Your task to perform on an android device: clear all cookies in the chrome app Image 0: 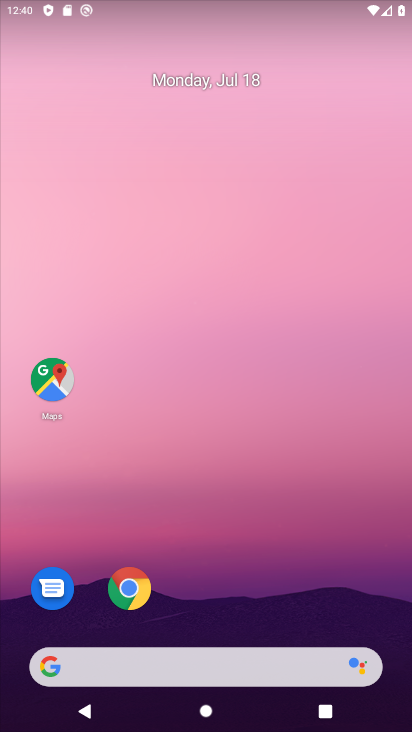
Step 0: click (144, 604)
Your task to perform on an android device: clear all cookies in the chrome app Image 1: 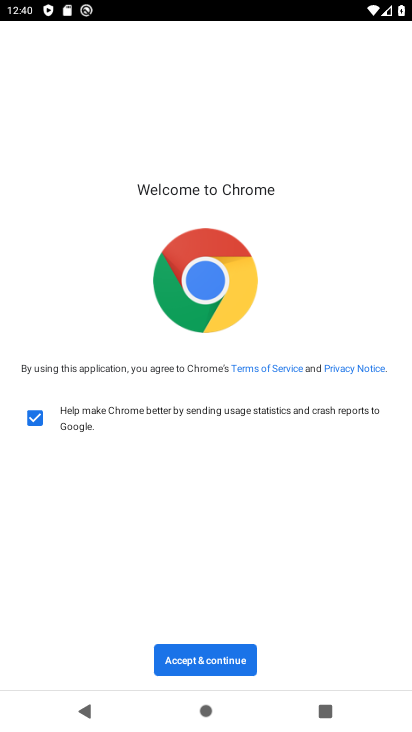
Step 1: click (198, 678)
Your task to perform on an android device: clear all cookies in the chrome app Image 2: 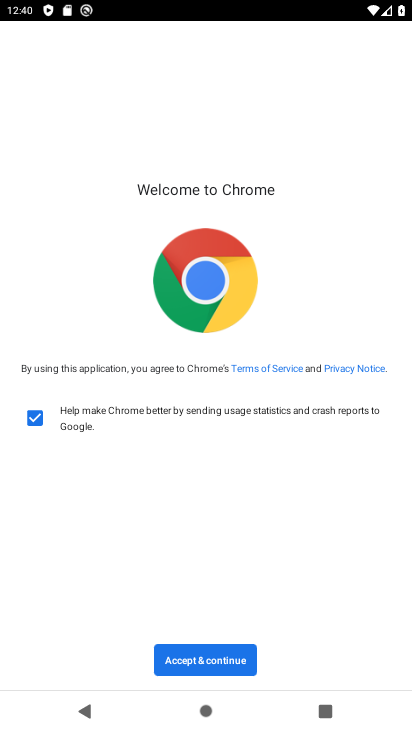
Step 2: click (192, 666)
Your task to perform on an android device: clear all cookies in the chrome app Image 3: 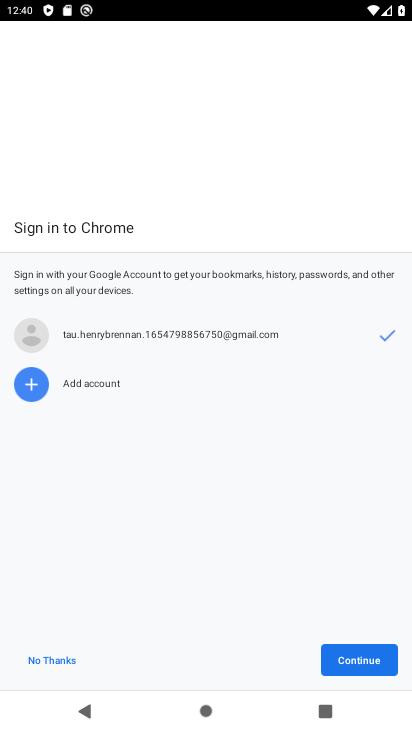
Step 3: click (368, 669)
Your task to perform on an android device: clear all cookies in the chrome app Image 4: 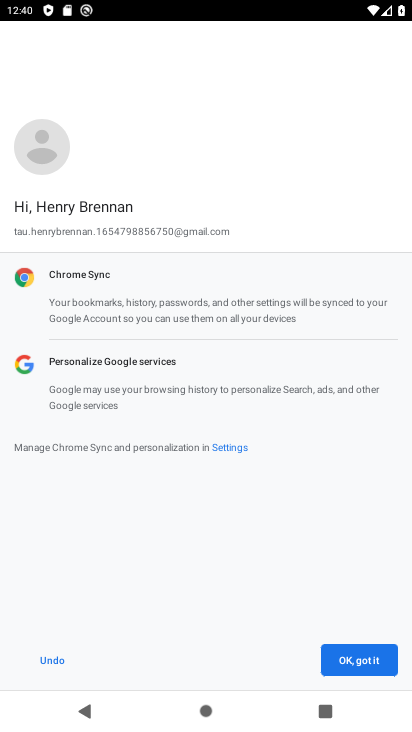
Step 4: click (363, 657)
Your task to perform on an android device: clear all cookies in the chrome app Image 5: 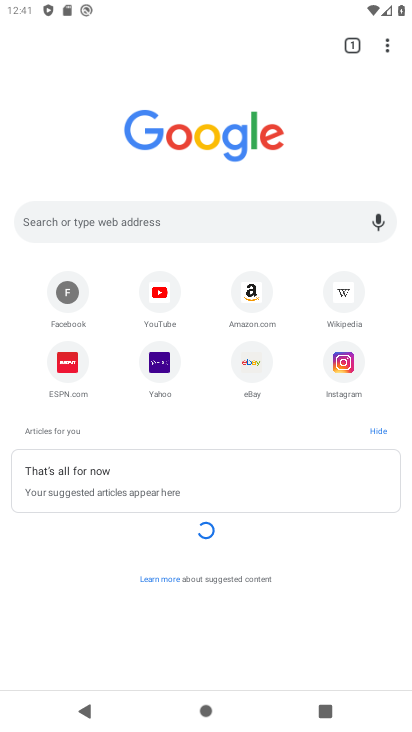
Step 5: drag from (390, 42) to (277, 260)
Your task to perform on an android device: clear all cookies in the chrome app Image 6: 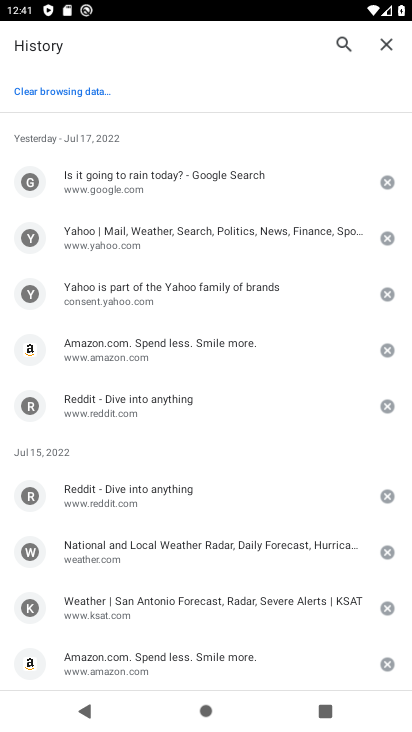
Step 6: click (49, 87)
Your task to perform on an android device: clear all cookies in the chrome app Image 7: 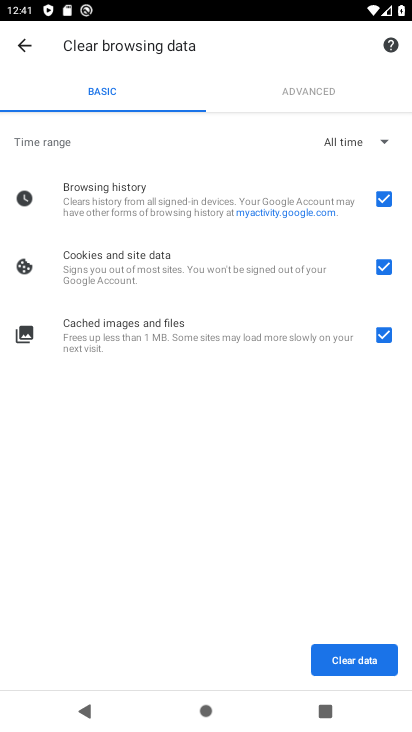
Step 7: click (377, 206)
Your task to perform on an android device: clear all cookies in the chrome app Image 8: 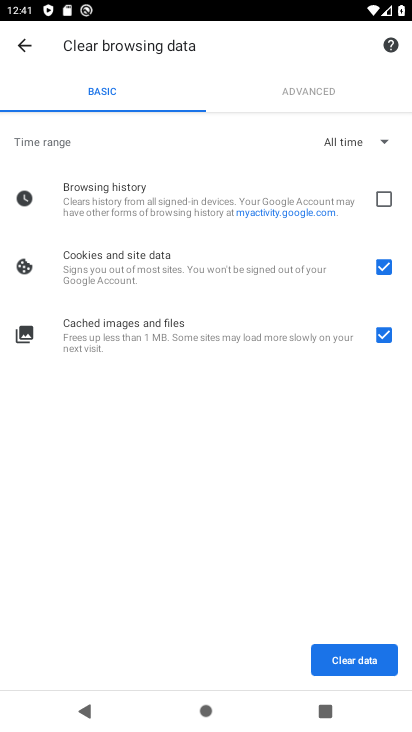
Step 8: click (386, 336)
Your task to perform on an android device: clear all cookies in the chrome app Image 9: 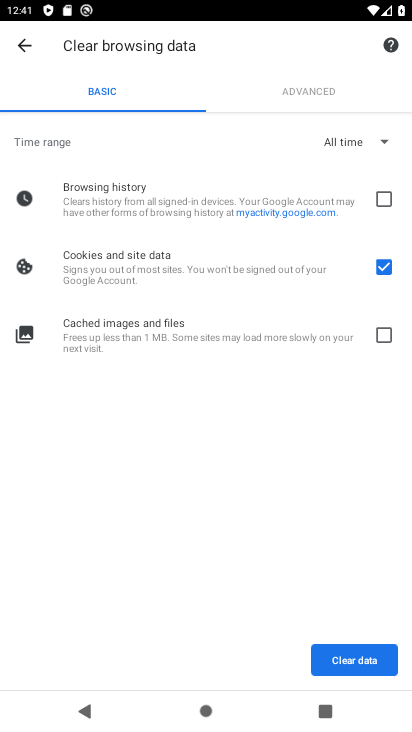
Step 9: click (363, 663)
Your task to perform on an android device: clear all cookies in the chrome app Image 10: 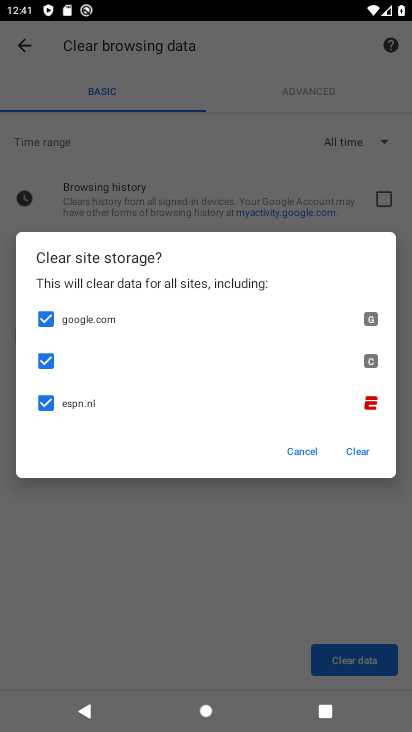
Step 10: click (350, 448)
Your task to perform on an android device: clear all cookies in the chrome app Image 11: 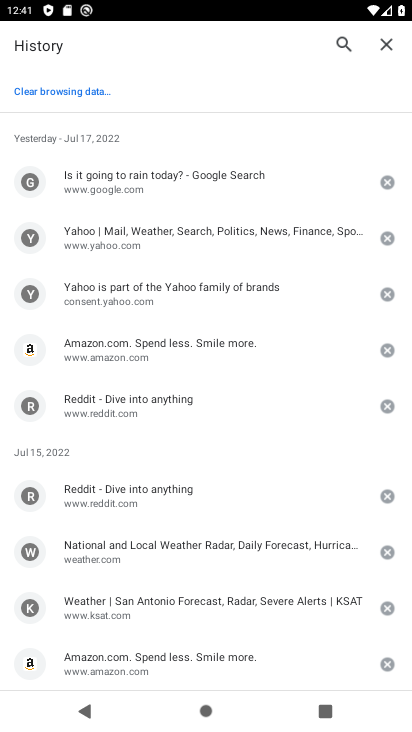
Step 11: task complete